Your task to perform on an android device: open device folders in google photos Image 0: 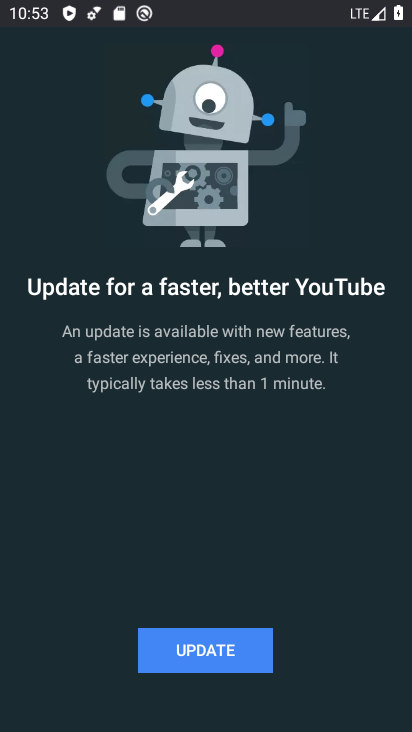
Step 0: press home button
Your task to perform on an android device: open device folders in google photos Image 1: 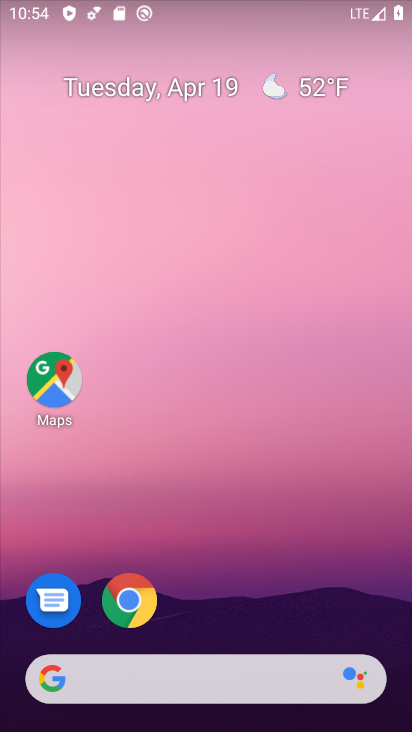
Step 1: drag from (234, 624) to (208, 10)
Your task to perform on an android device: open device folders in google photos Image 2: 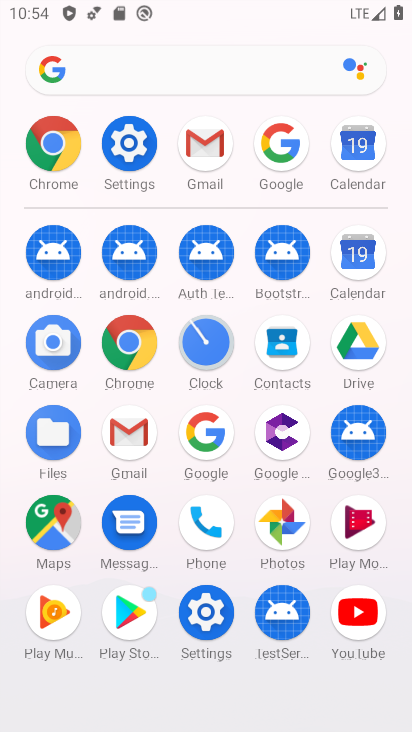
Step 2: click (282, 530)
Your task to perform on an android device: open device folders in google photos Image 3: 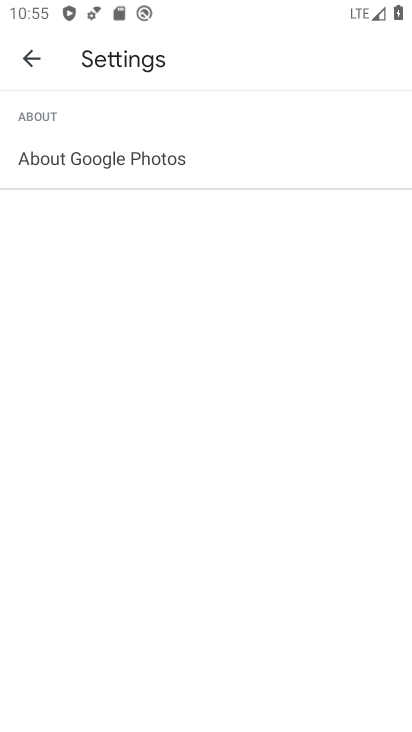
Step 3: click (27, 53)
Your task to perform on an android device: open device folders in google photos Image 4: 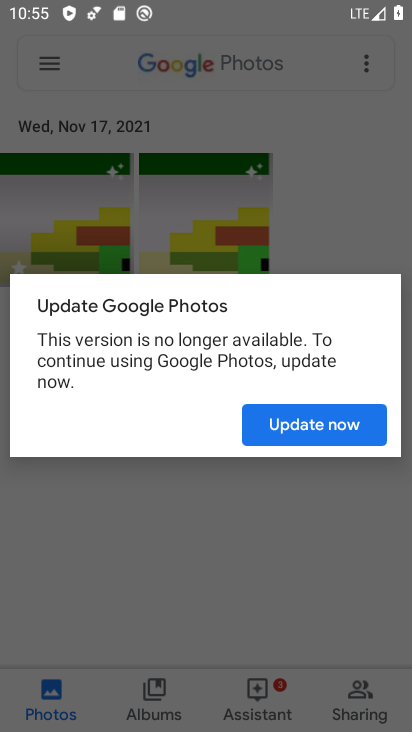
Step 4: click (298, 411)
Your task to perform on an android device: open device folders in google photos Image 5: 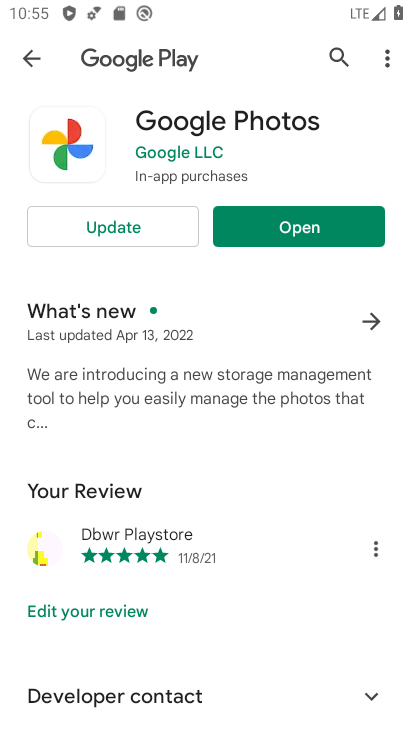
Step 5: click (246, 221)
Your task to perform on an android device: open device folders in google photos Image 6: 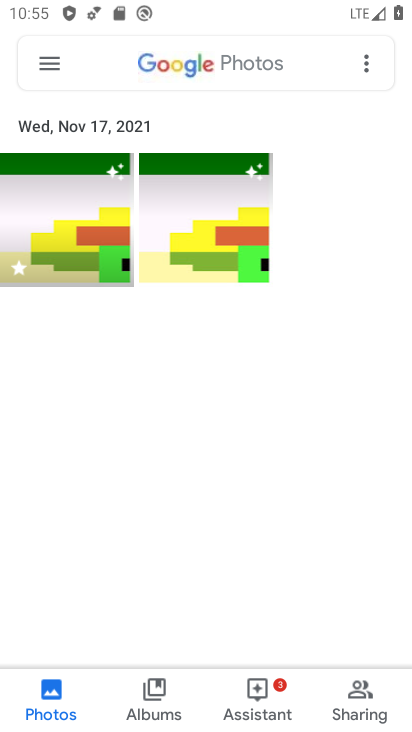
Step 6: click (49, 61)
Your task to perform on an android device: open device folders in google photos Image 7: 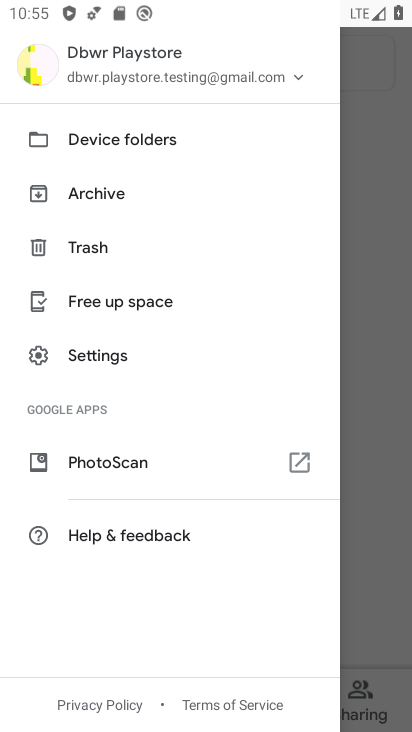
Step 7: click (102, 140)
Your task to perform on an android device: open device folders in google photos Image 8: 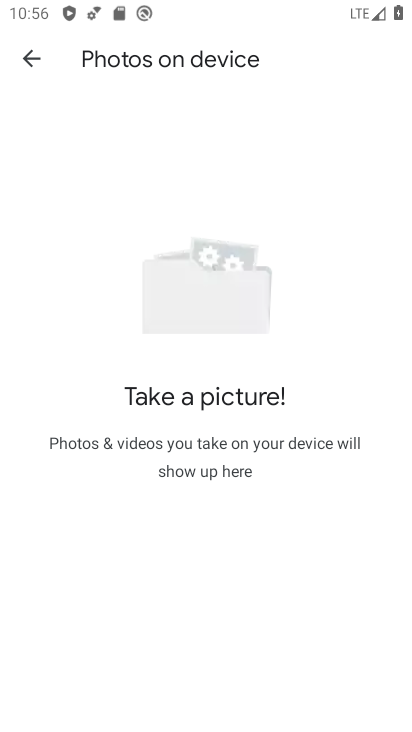
Step 8: task complete